Your task to perform on an android device: see sites visited before in the chrome app Image 0: 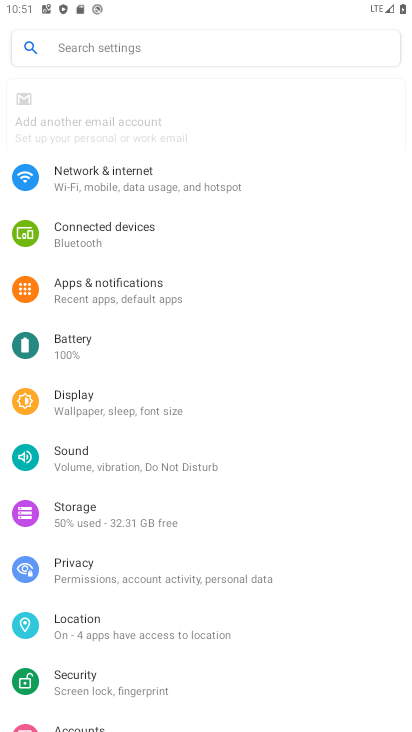
Step 0: drag from (274, 546) to (264, 98)
Your task to perform on an android device: see sites visited before in the chrome app Image 1: 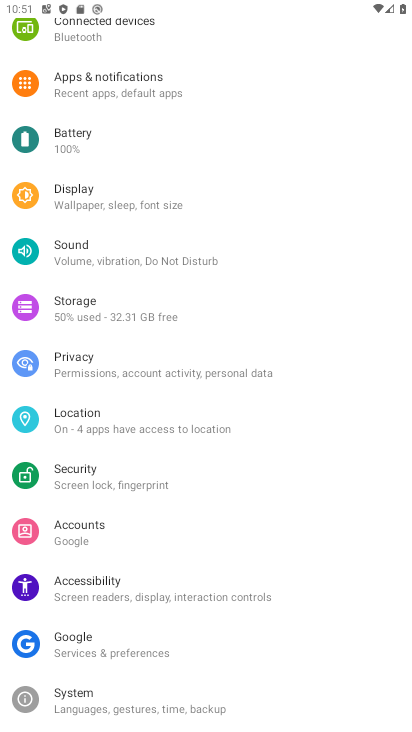
Step 1: press home button
Your task to perform on an android device: see sites visited before in the chrome app Image 2: 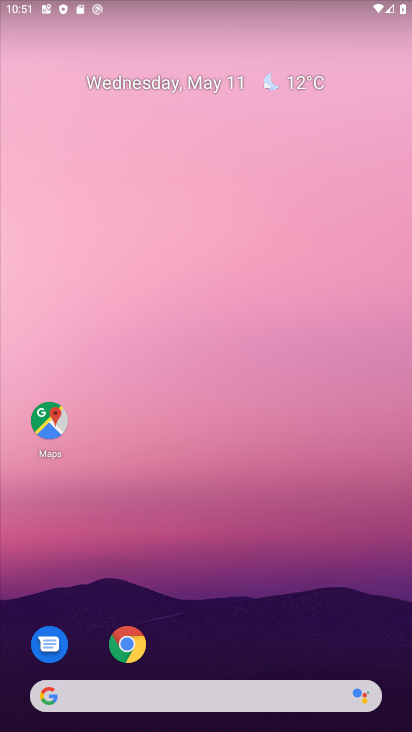
Step 2: drag from (280, 616) to (255, 205)
Your task to perform on an android device: see sites visited before in the chrome app Image 3: 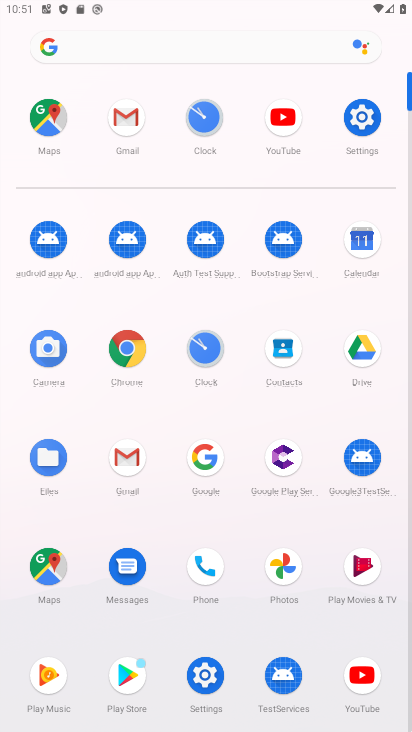
Step 3: click (141, 364)
Your task to perform on an android device: see sites visited before in the chrome app Image 4: 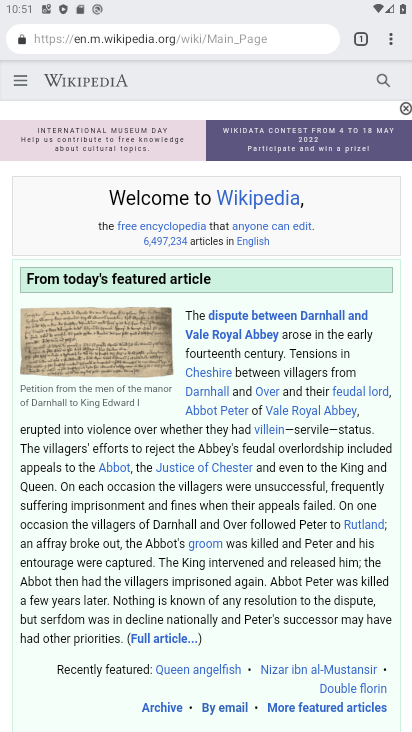
Step 4: click (400, 42)
Your task to perform on an android device: see sites visited before in the chrome app Image 5: 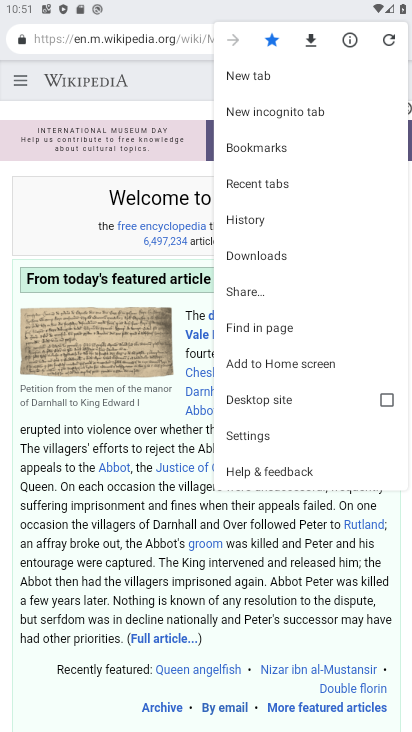
Step 5: click (291, 186)
Your task to perform on an android device: see sites visited before in the chrome app Image 6: 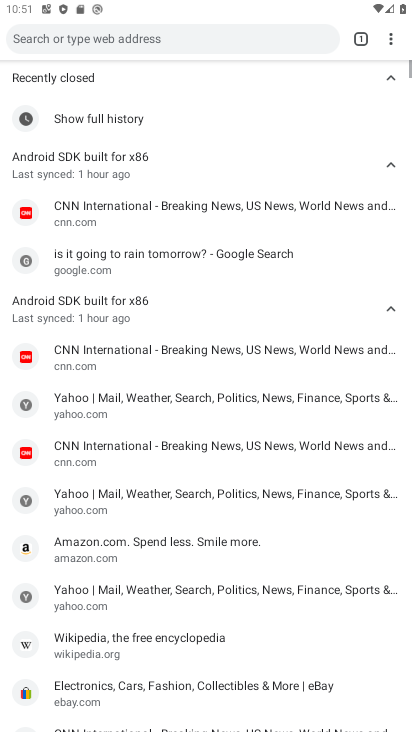
Step 6: task complete